Your task to perform on an android device: open app "Adobe Acrobat Reader: Edit PDF" Image 0: 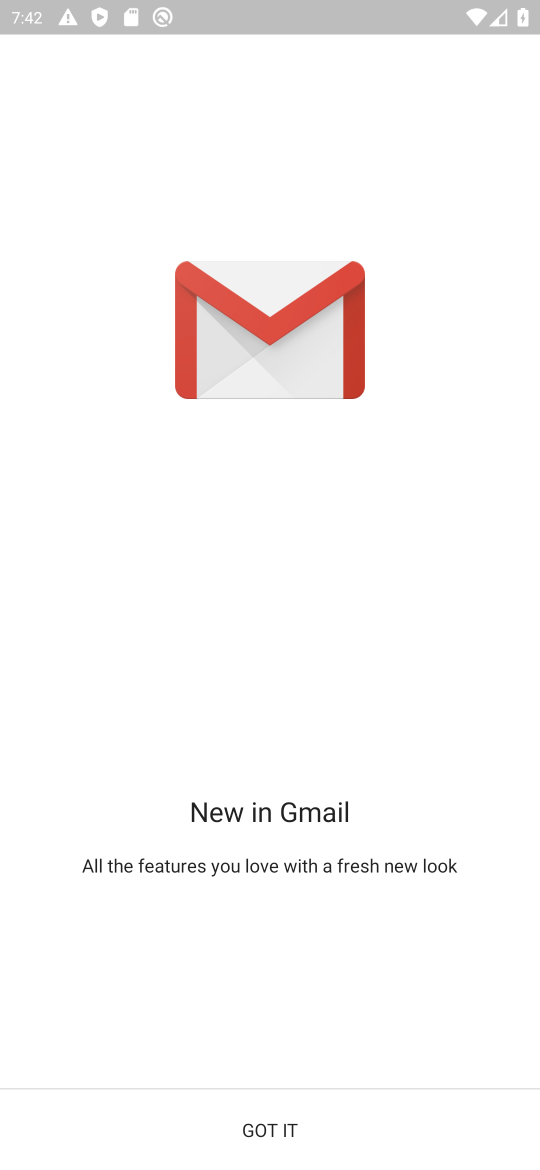
Step 0: press home button
Your task to perform on an android device: open app "Adobe Acrobat Reader: Edit PDF" Image 1: 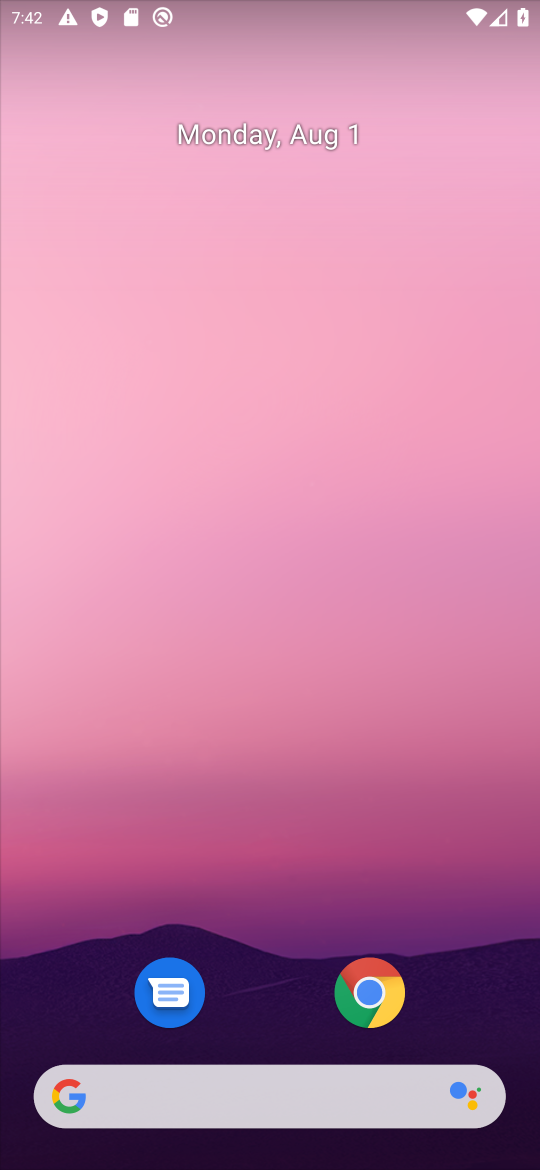
Step 1: drag from (395, 721) to (450, 131)
Your task to perform on an android device: open app "Adobe Acrobat Reader: Edit PDF" Image 2: 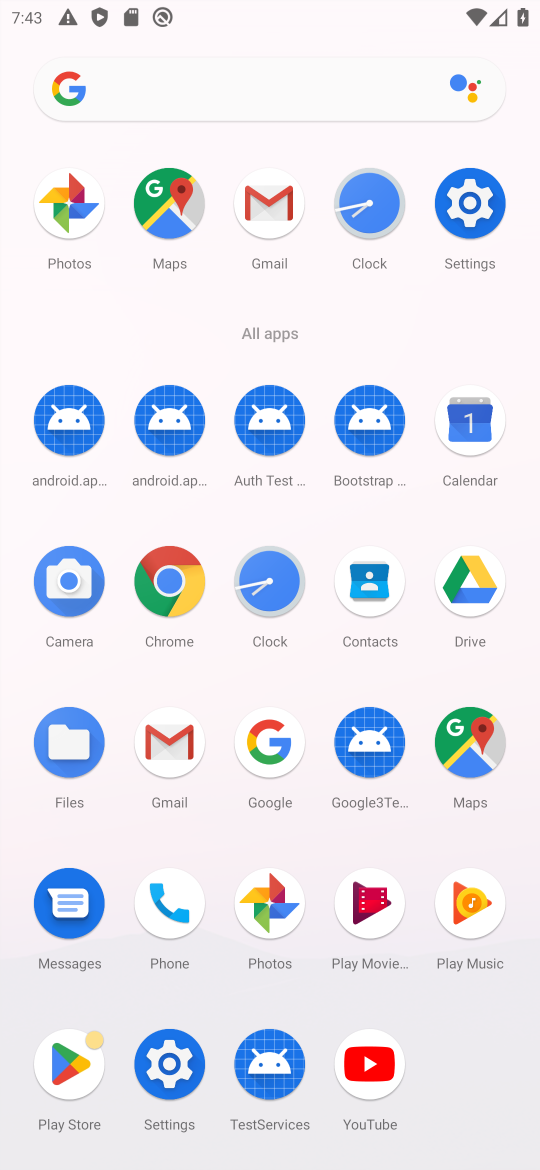
Step 2: click (81, 1059)
Your task to perform on an android device: open app "Adobe Acrobat Reader: Edit PDF" Image 3: 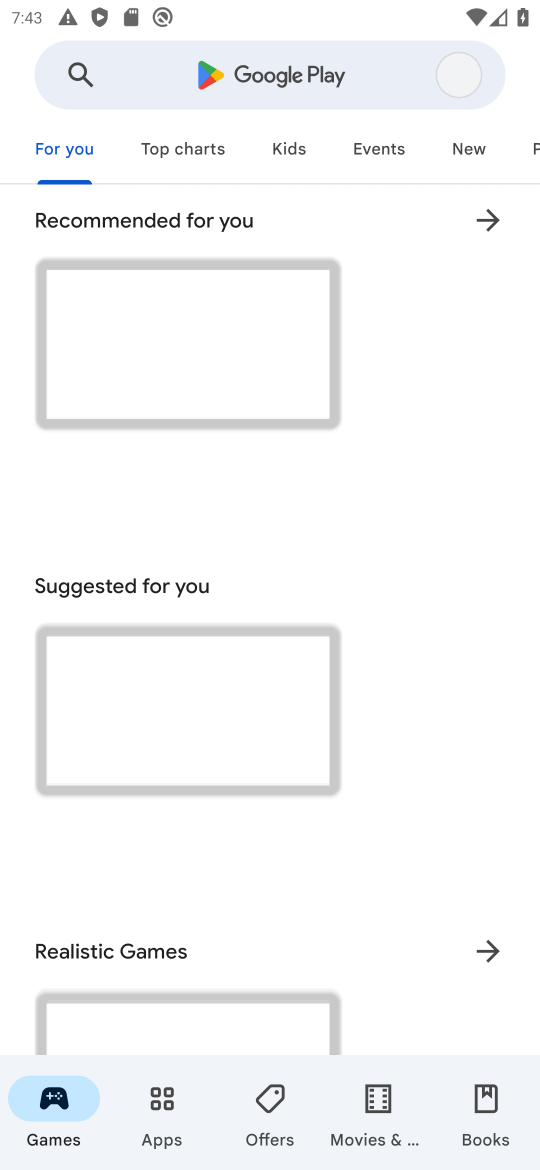
Step 3: click (319, 41)
Your task to perform on an android device: open app "Adobe Acrobat Reader: Edit PDF" Image 4: 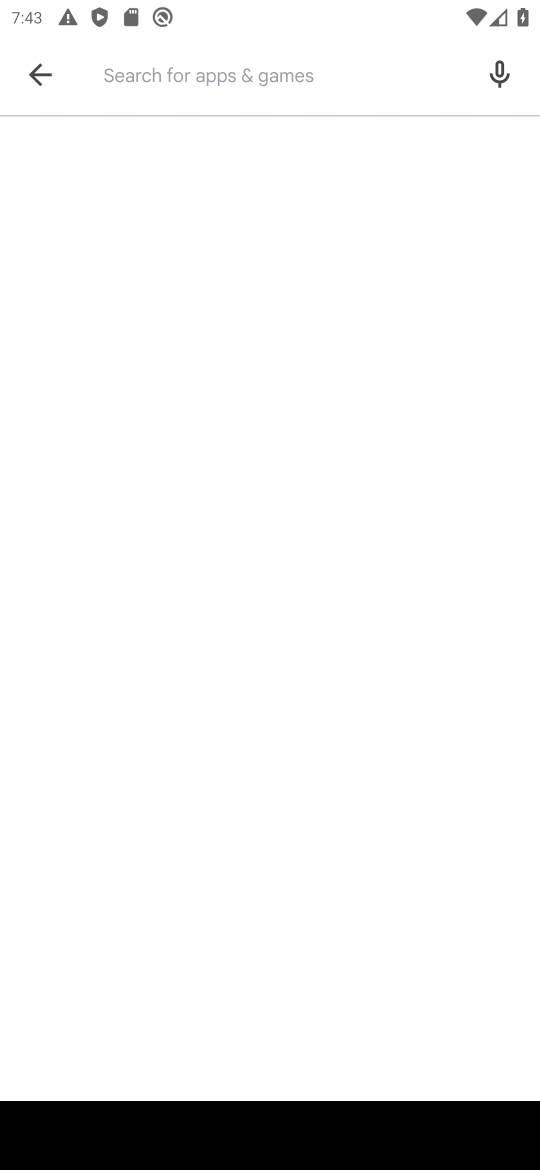
Step 4: type "Adobe Acrobat Reader"
Your task to perform on an android device: open app "Adobe Acrobat Reader: Edit PDF" Image 5: 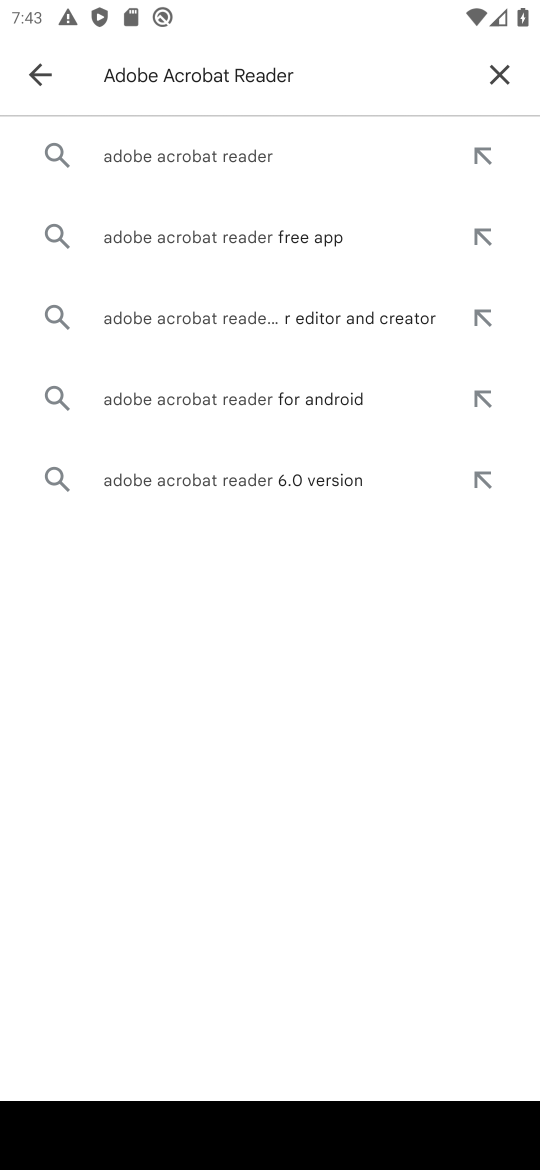
Step 5: press enter
Your task to perform on an android device: open app "Adobe Acrobat Reader: Edit PDF" Image 6: 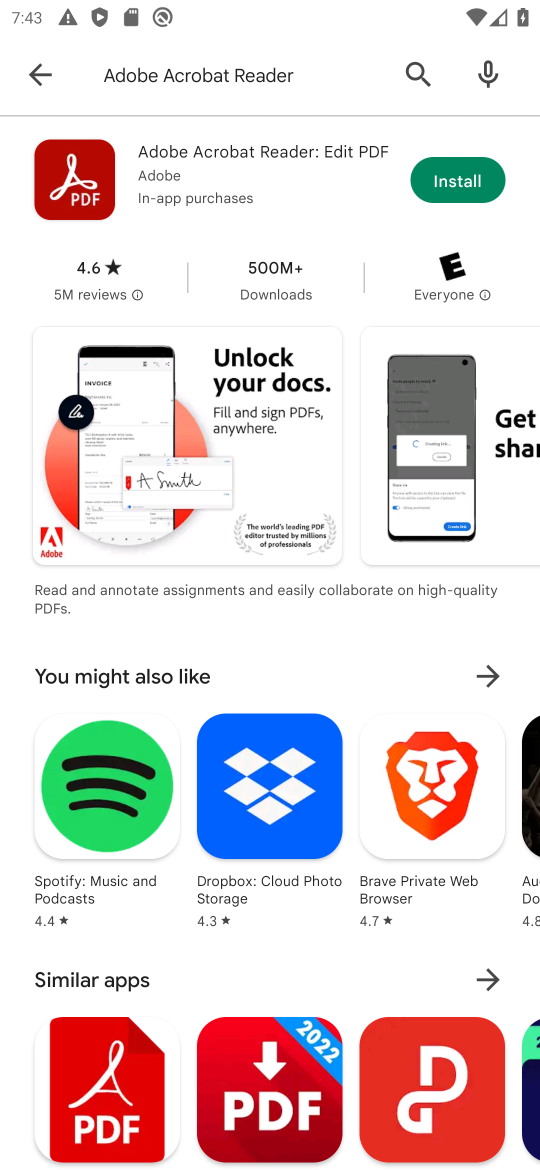
Step 6: click (326, 171)
Your task to perform on an android device: open app "Adobe Acrobat Reader: Edit PDF" Image 7: 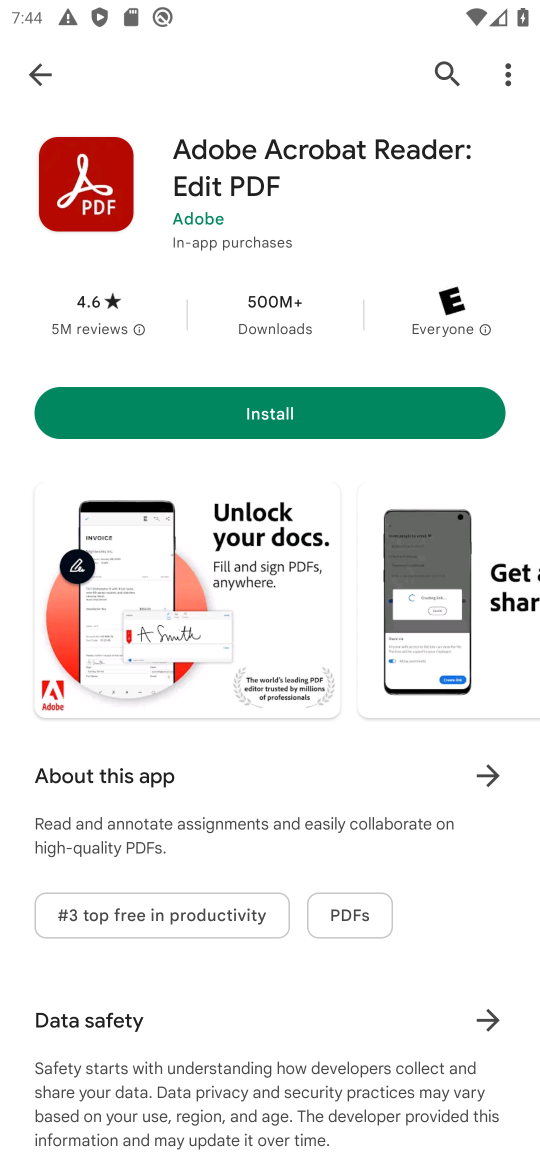
Step 7: task complete